Your task to perform on an android device: change the clock display to digital Image 0: 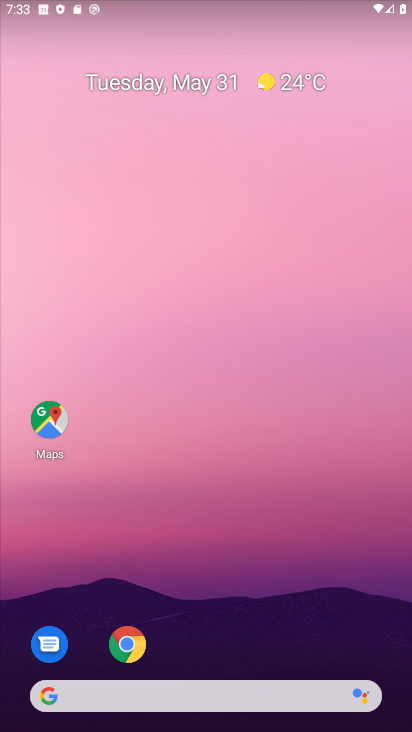
Step 0: drag from (369, 609) to (376, 244)
Your task to perform on an android device: change the clock display to digital Image 1: 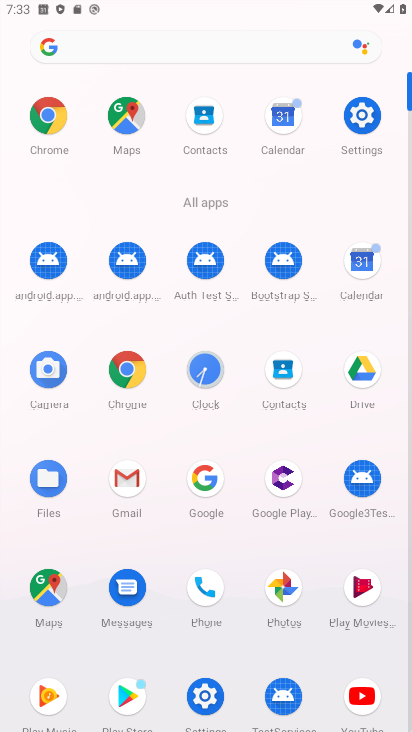
Step 1: click (202, 371)
Your task to perform on an android device: change the clock display to digital Image 2: 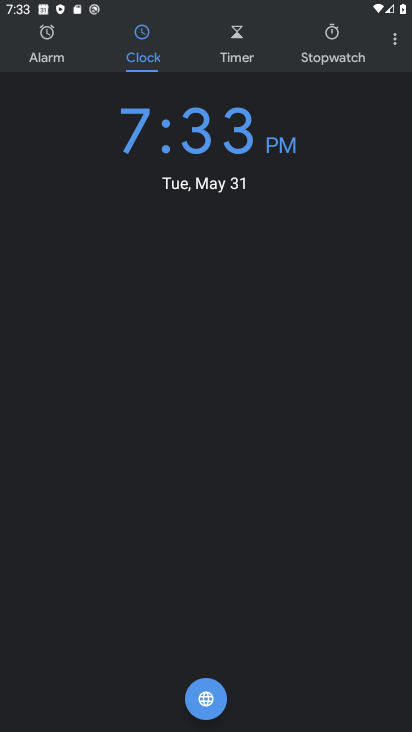
Step 2: click (388, 43)
Your task to perform on an android device: change the clock display to digital Image 3: 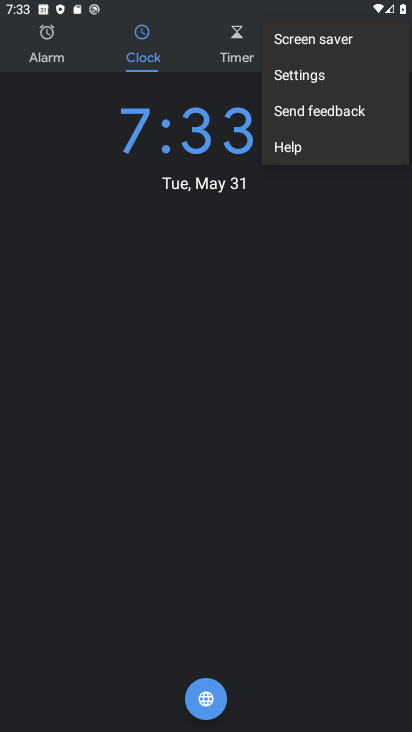
Step 3: click (320, 77)
Your task to perform on an android device: change the clock display to digital Image 4: 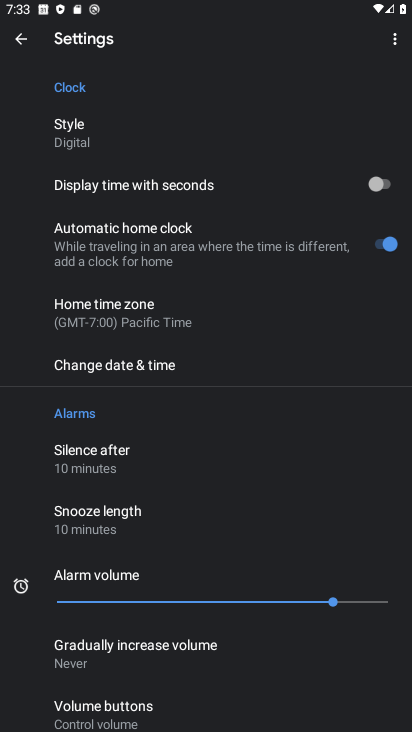
Step 4: click (137, 132)
Your task to perform on an android device: change the clock display to digital Image 5: 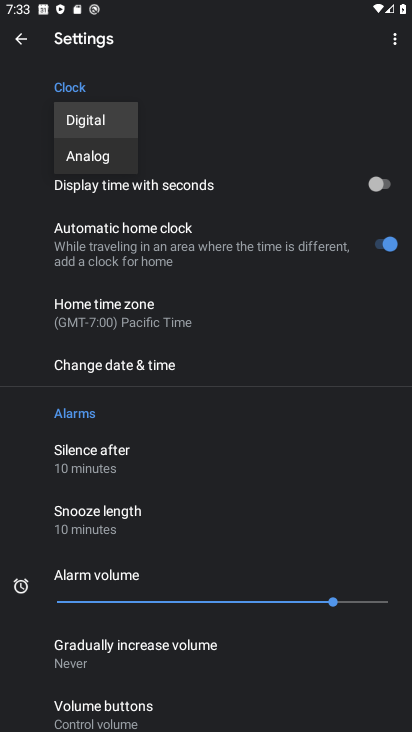
Step 5: task complete